Your task to perform on an android device: Open calendar and show me the first week of next month Image 0: 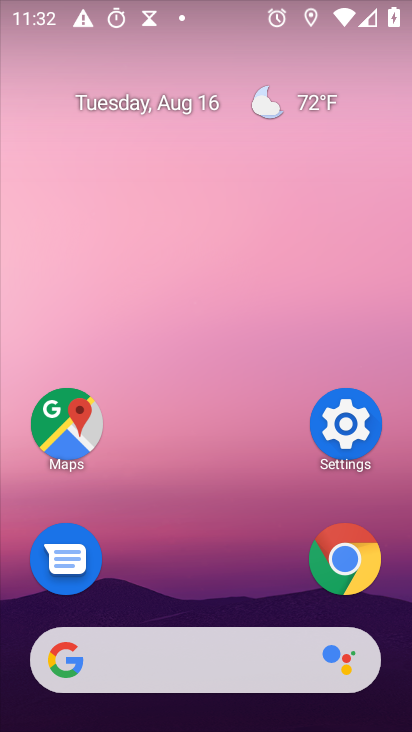
Step 0: press home button
Your task to perform on an android device: Open calendar and show me the first week of next month Image 1: 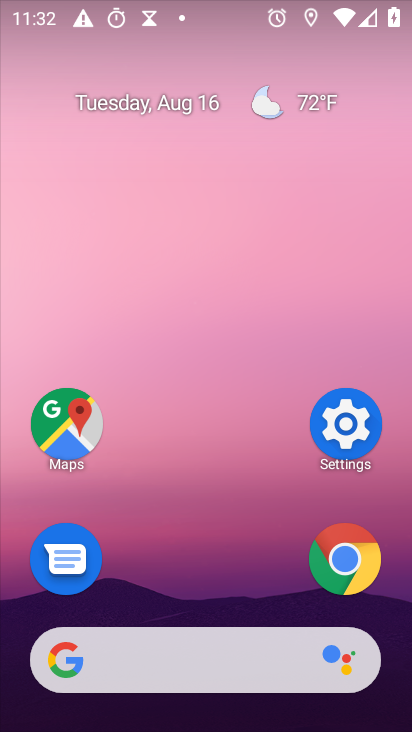
Step 1: drag from (210, 625) to (280, 33)
Your task to perform on an android device: Open calendar and show me the first week of next month Image 2: 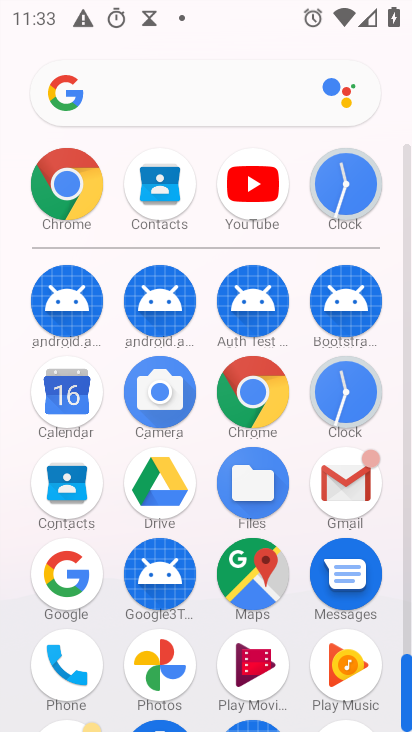
Step 2: click (68, 401)
Your task to perform on an android device: Open calendar and show me the first week of next month Image 3: 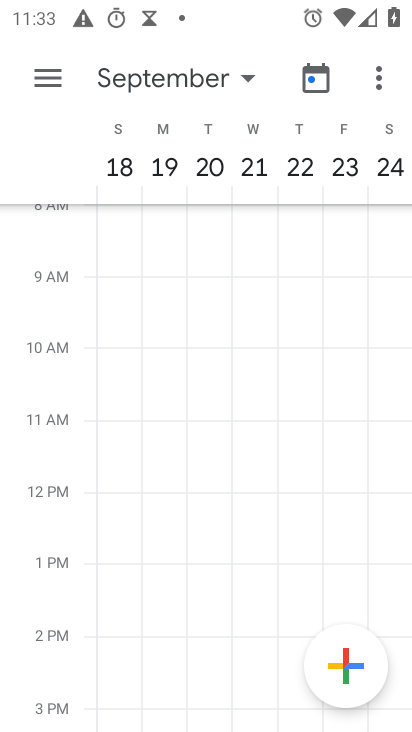
Step 3: drag from (96, 169) to (361, 161)
Your task to perform on an android device: Open calendar and show me the first week of next month Image 4: 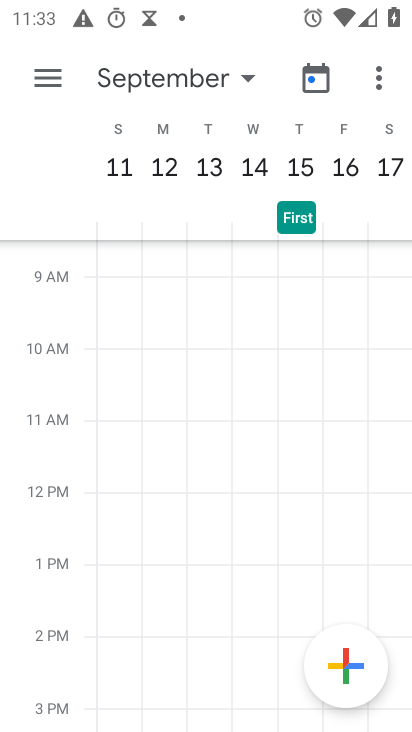
Step 4: drag from (130, 173) to (383, 155)
Your task to perform on an android device: Open calendar and show me the first week of next month Image 5: 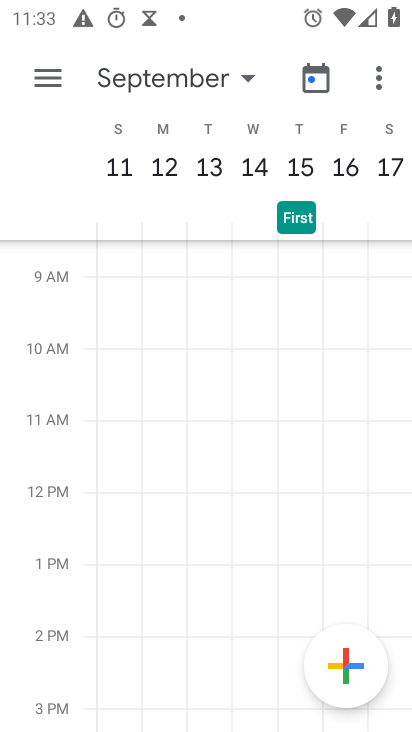
Step 5: drag from (111, 178) to (411, 199)
Your task to perform on an android device: Open calendar and show me the first week of next month Image 6: 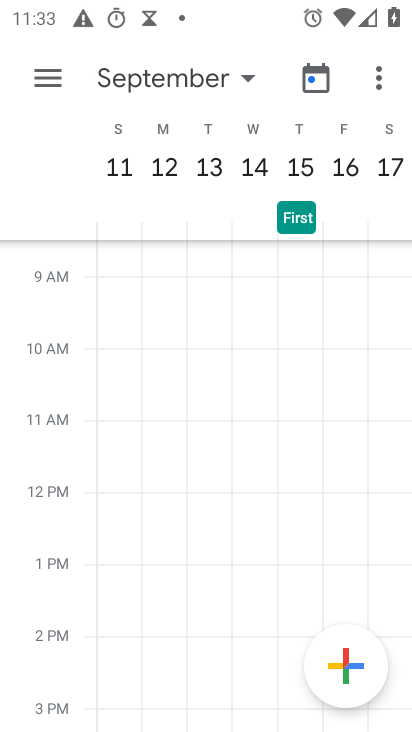
Step 6: drag from (125, 160) to (393, 179)
Your task to perform on an android device: Open calendar and show me the first week of next month Image 7: 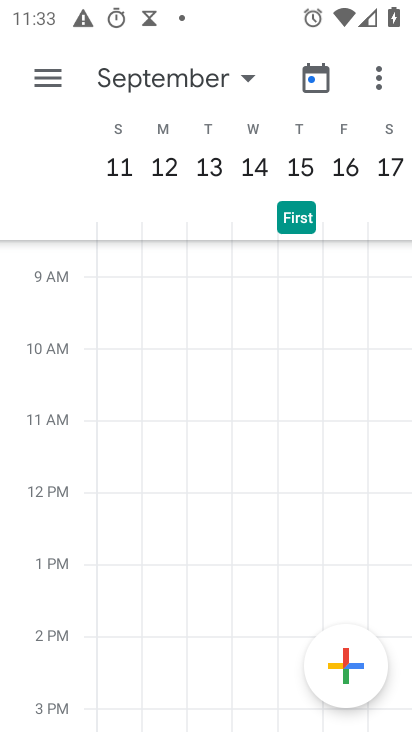
Step 7: click (181, 73)
Your task to perform on an android device: Open calendar and show me the first week of next month Image 8: 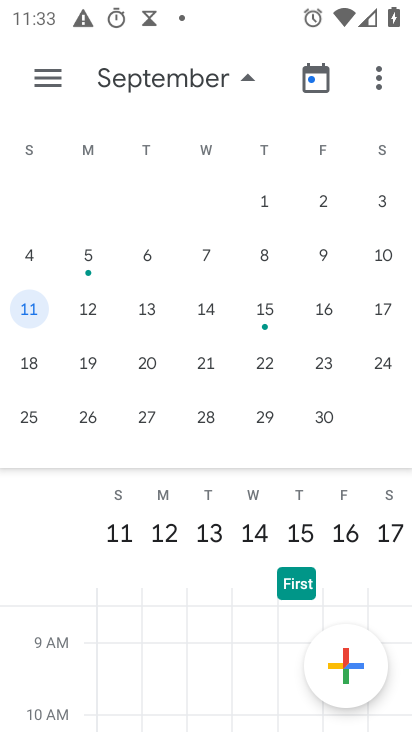
Step 8: click (262, 196)
Your task to perform on an android device: Open calendar and show me the first week of next month Image 9: 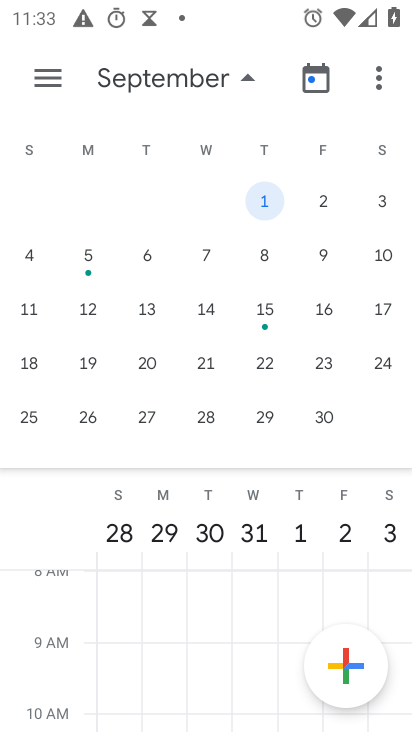
Step 9: click (62, 65)
Your task to perform on an android device: Open calendar and show me the first week of next month Image 10: 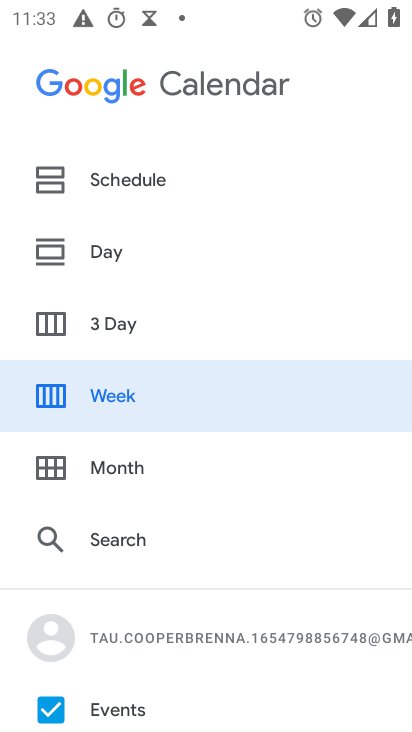
Step 10: click (116, 392)
Your task to perform on an android device: Open calendar and show me the first week of next month Image 11: 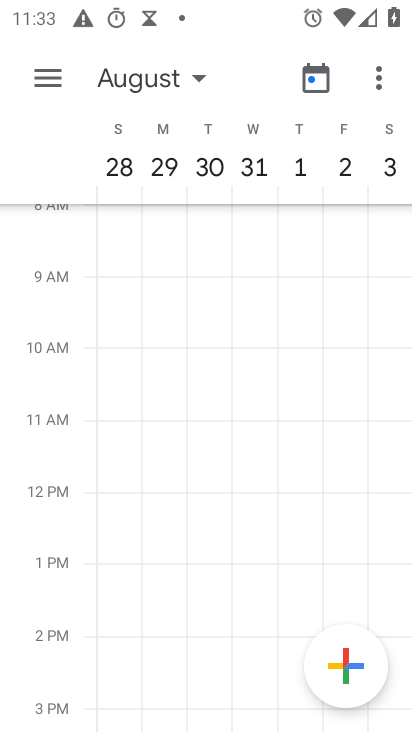
Step 11: task complete